Your task to perform on an android device: refresh tabs in the chrome app Image 0: 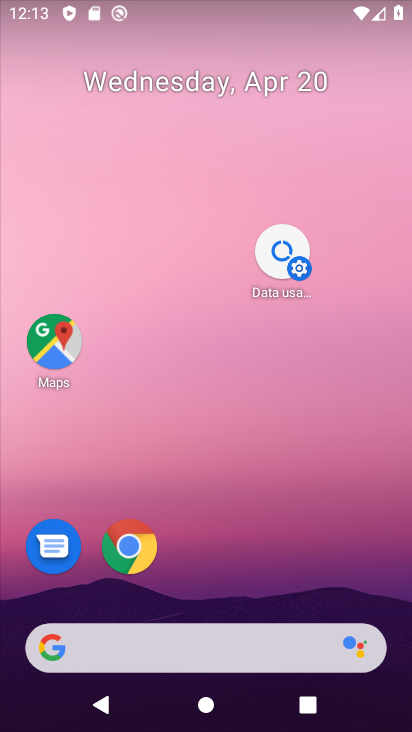
Step 0: click (133, 546)
Your task to perform on an android device: refresh tabs in the chrome app Image 1: 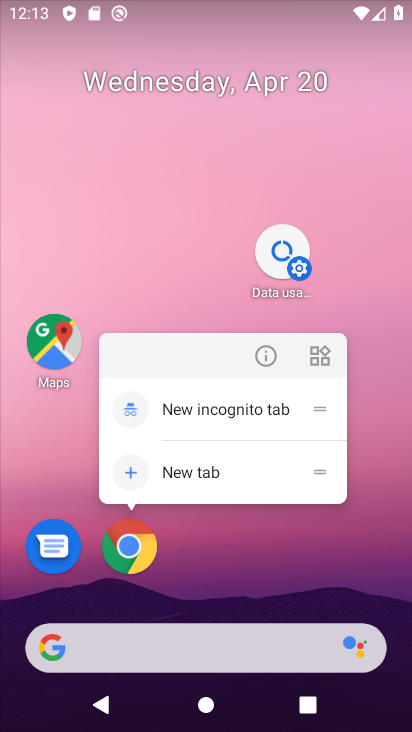
Step 1: click (133, 546)
Your task to perform on an android device: refresh tabs in the chrome app Image 2: 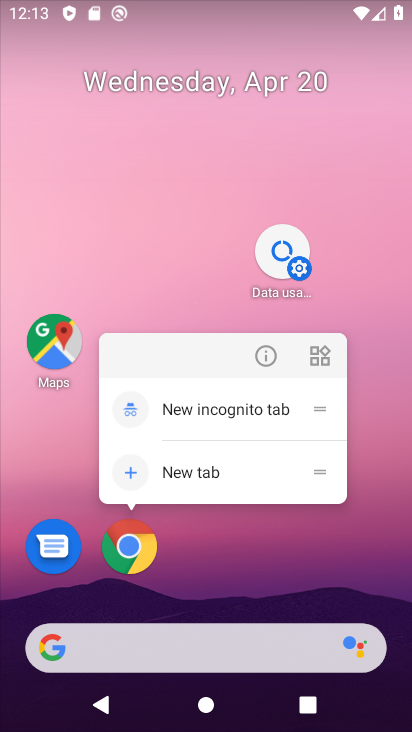
Step 2: click (119, 549)
Your task to perform on an android device: refresh tabs in the chrome app Image 3: 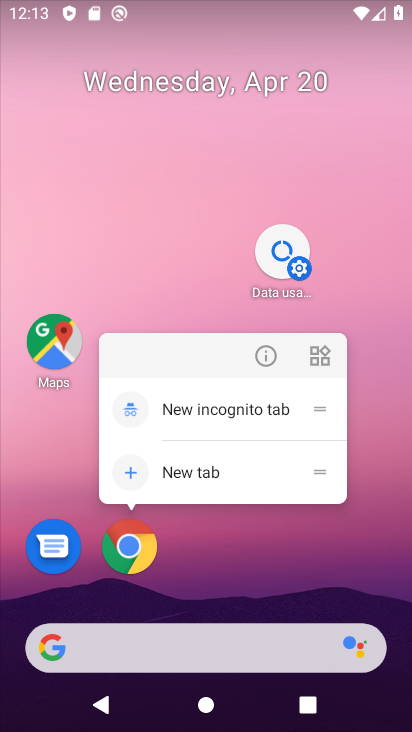
Step 3: click (112, 546)
Your task to perform on an android device: refresh tabs in the chrome app Image 4: 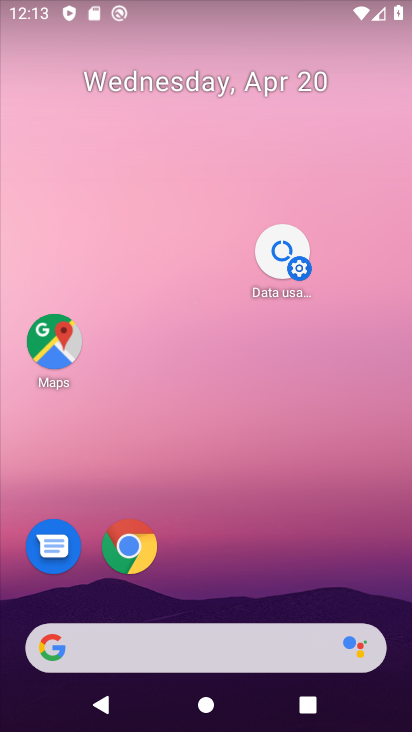
Step 4: click (123, 540)
Your task to perform on an android device: refresh tabs in the chrome app Image 5: 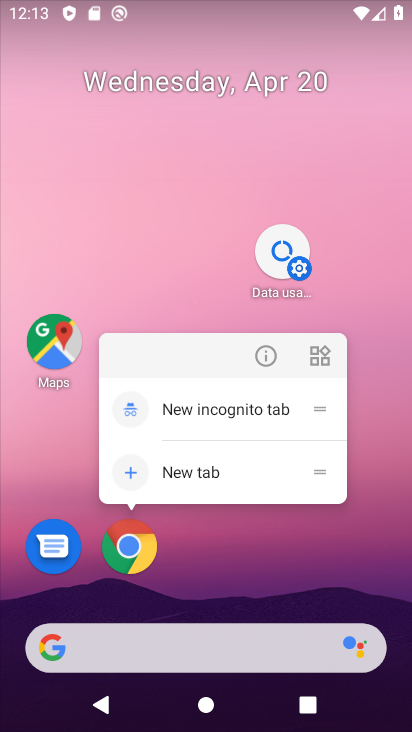
Step 5: click (123, 540)
Your task to perform on an android device: refresh tabs in the chrome app Image 6: 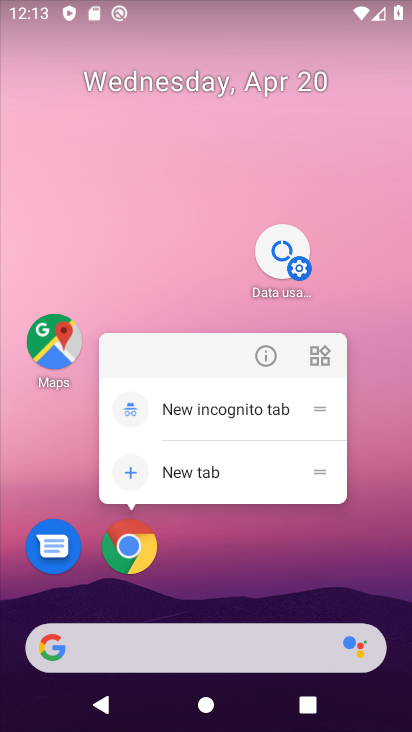
Step 6: click (127, 547)
Your task to perform on an android device: refresh tabs in the chrome app Image 7: 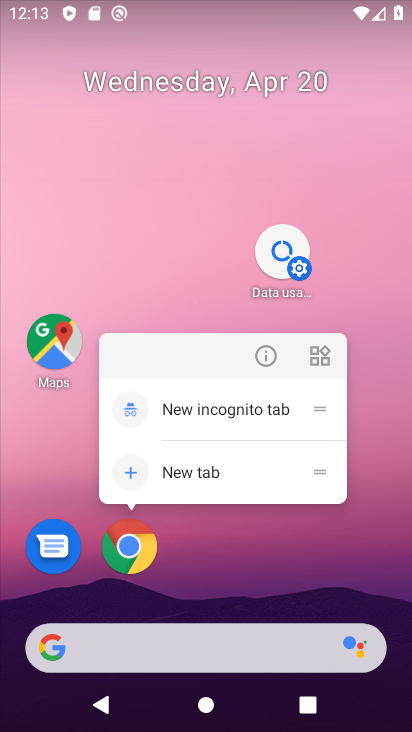
Step 7: click (111, 547)
Your task to perform on an android device: refresh tabs in the chrome app Image 8: 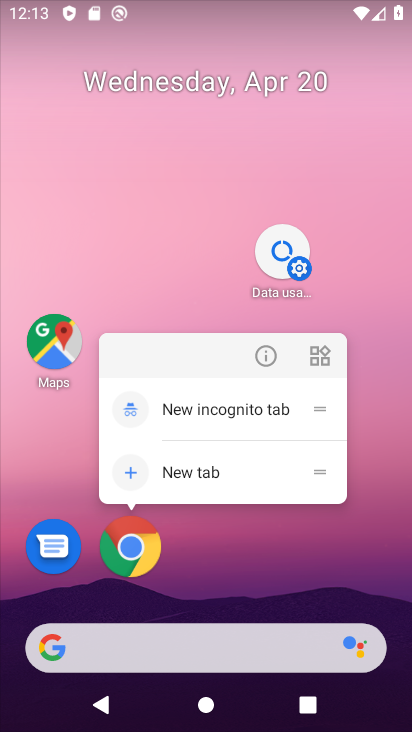
Step 8: click (111, 547)
Your task to perform on an android device: refresh tabs in the chrome app Image 9: 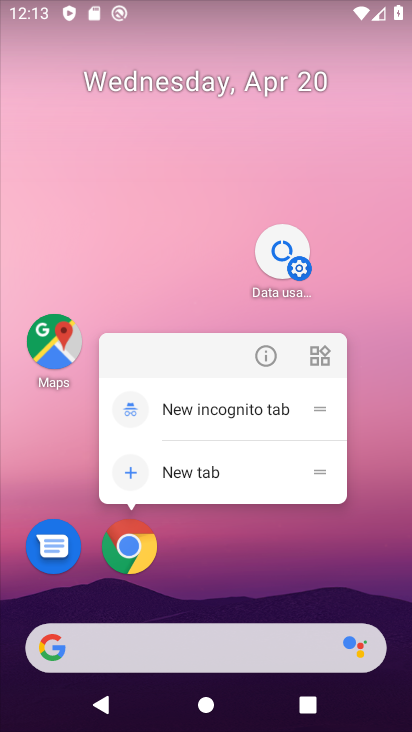
Step 9: click (129, 562)
Your task to perform on an android device: refresh tabs in the chrome app Image 10: 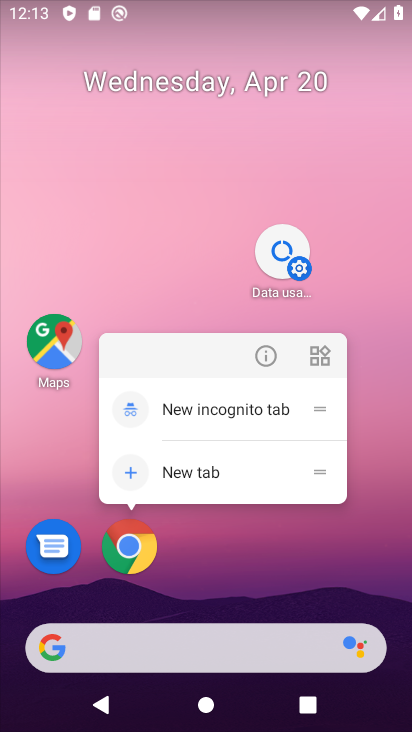
Step 10: click (129, 562)
Your task to perform on an android device: refresh tabs in the chrome app Image 11: 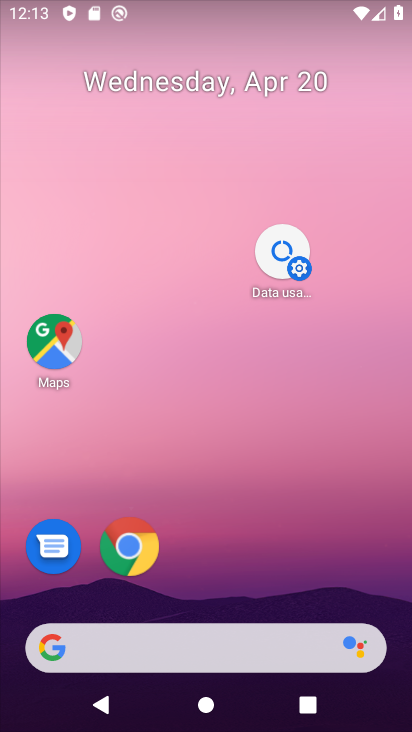
Step 11: click (129, 562)
Your task to perform on an android device: refresh tabs in the chrome app Image 12: 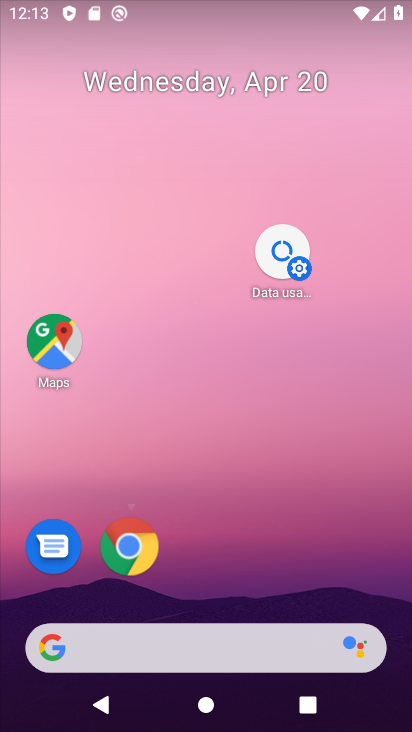
Step 12: click (129, 562)
Your task to perform on an android device: refresh tabs in the chrome app Image 13: 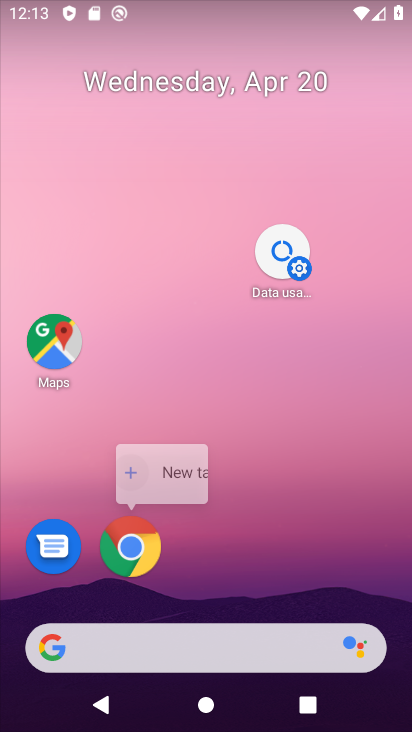
Step 13: click (129, 562)
Your task to perform on an android device: refresh tabs in the chrome app Image 14: 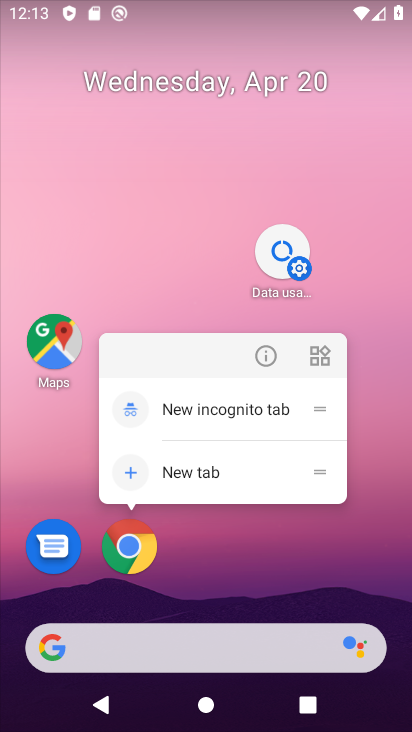
Step 14: click (129, 562)
Your task to perform on an android device: refresh tabs in the chrome app Image 15: 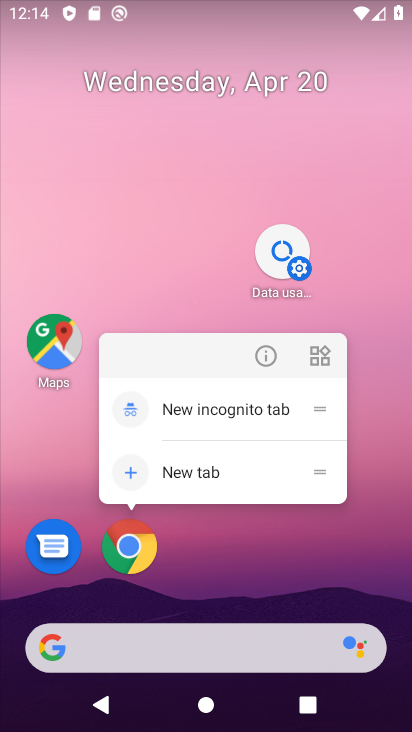
Step 15: click (129, 562)
Your task to perform on an android device: refresh tabs in the chrome app Image 16: 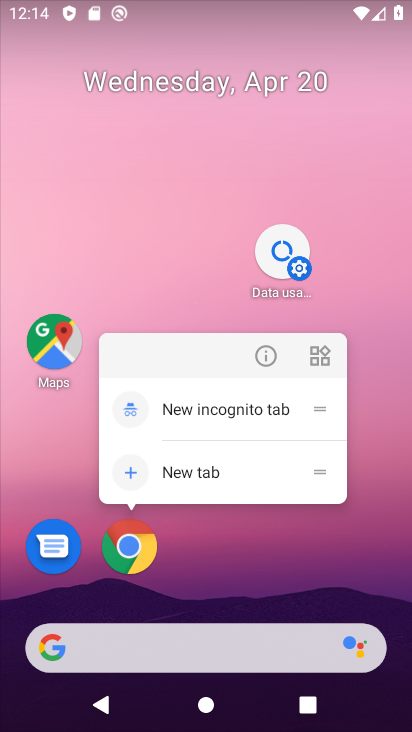
Step 16: click (129, 562)
Your task to perform on an android device: refresh tabs in the chrome app Image 17: 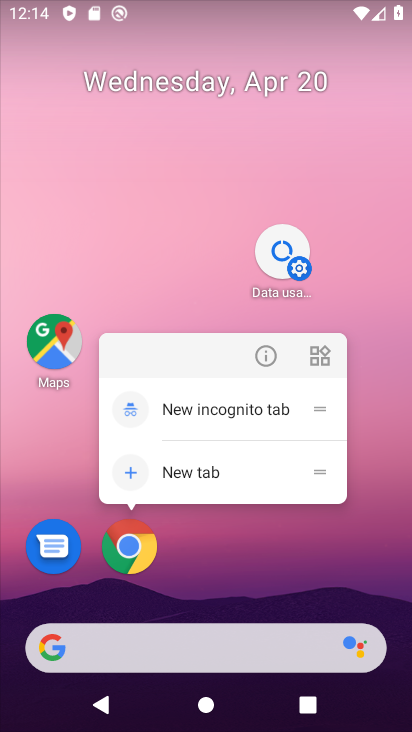
Step 17: click (129, 562)
Your task to perform on an android device: refresh tabs in the chrome app Image 18: 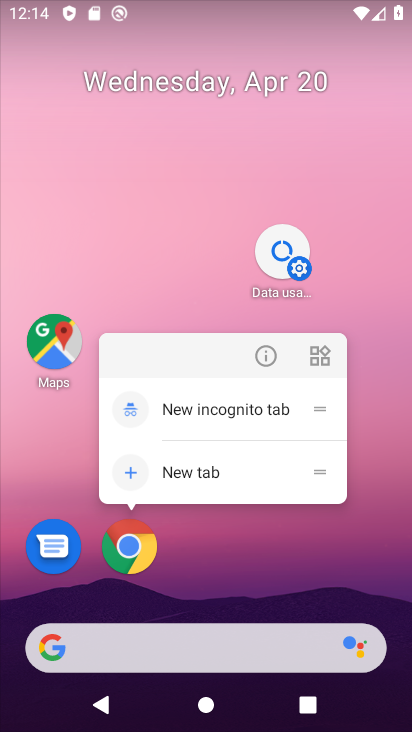
Step 18: click (138, 543)
Your task to perform on an android device: refresh tabs in the chrome app Image 19: 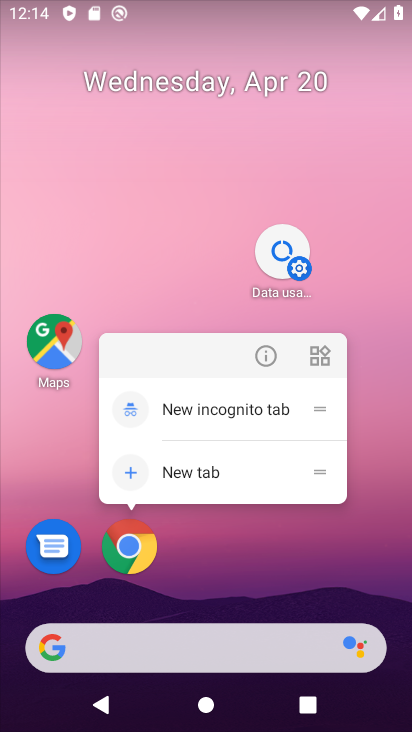
Step 19: click (145, 538)
Your task to perform on an android device: refresh tabs in the chrome app Image 20: 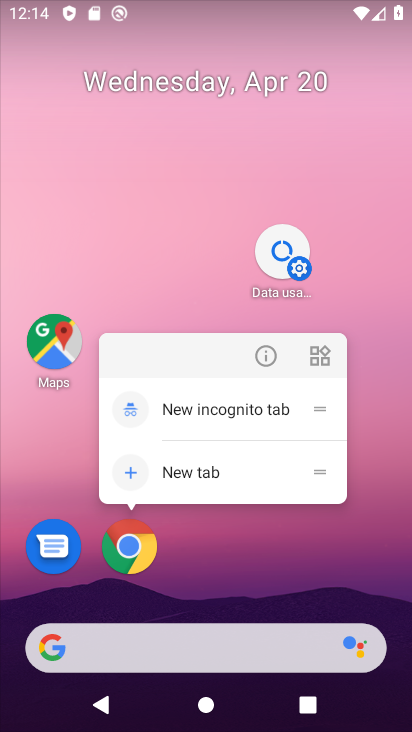
Step 20: click (145, 538)
Your task to perform on an android device: refresh tabs in the chrome app Image 21: 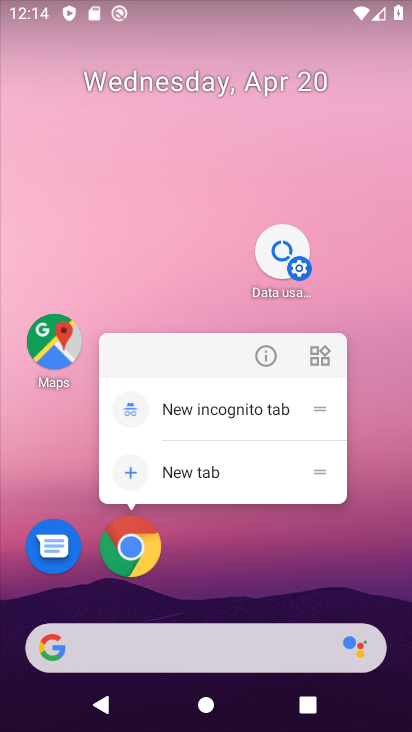
Step 21: click (145, 538)
Your task to perform on an android device: refresh tabs in the chrome app Image 22: 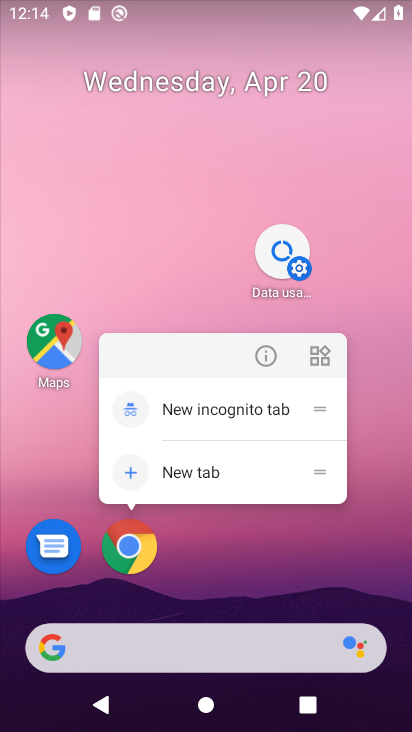
Step 22: click (145, 538)
Your task to perform on an android device: refresh tabs in the chrome app Image 23: 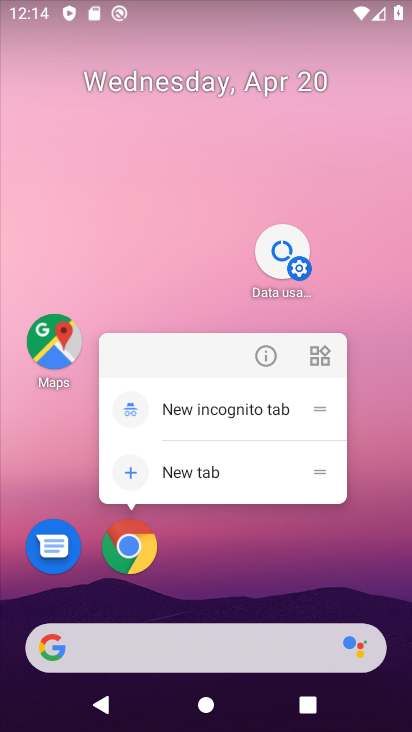
Step 23: click (123, 578)
Your task to perform on an android device: refresh tabs in the chrome app Image 24: 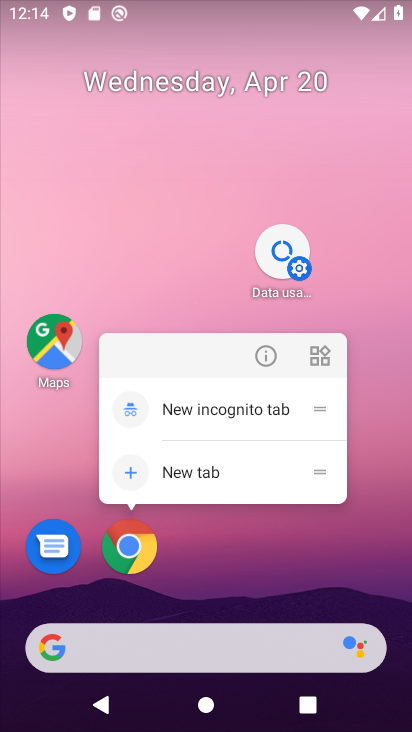
Step 24: click (132, 540)
Your task to perform on an android device: refresh tabs in the chrome app Image 25: 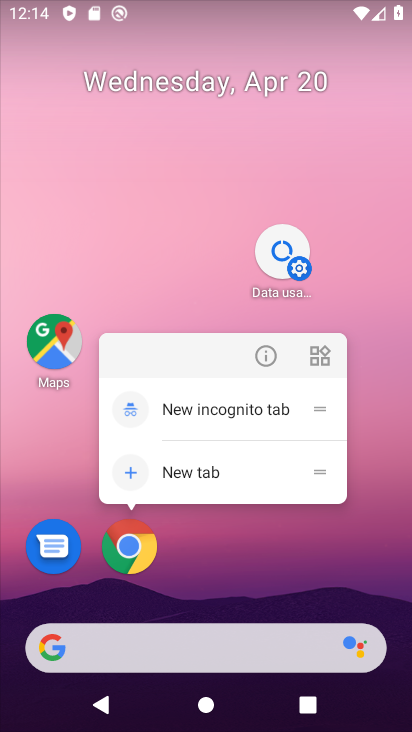
Step 25: click (109, 533)
Your task to perform on an android device: refresh tabs in the chrome app Image 26: 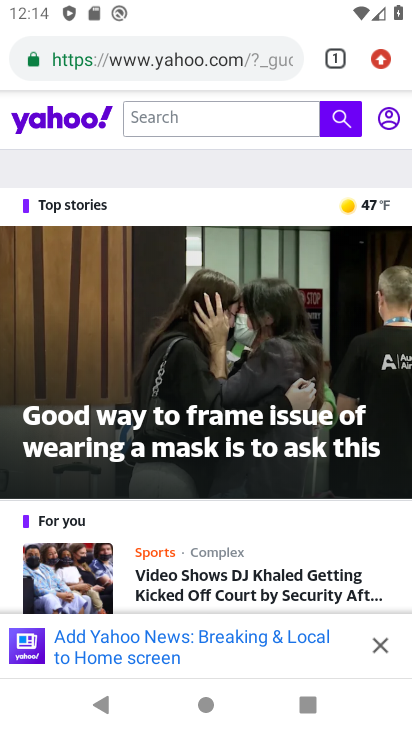
Step 26: click (381, 58)
Your task to perform on an android device: refresh tabs in the chrome app Image 27: 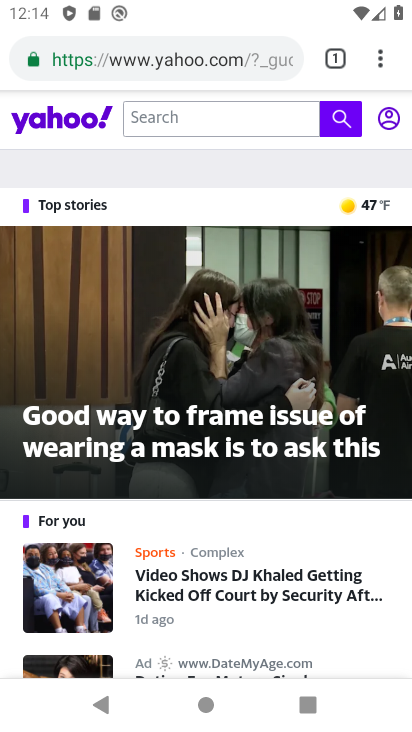
Step 27: click (376, 59)
Your task to perform on an android device: refresh tabs in the chrome app Image 28: 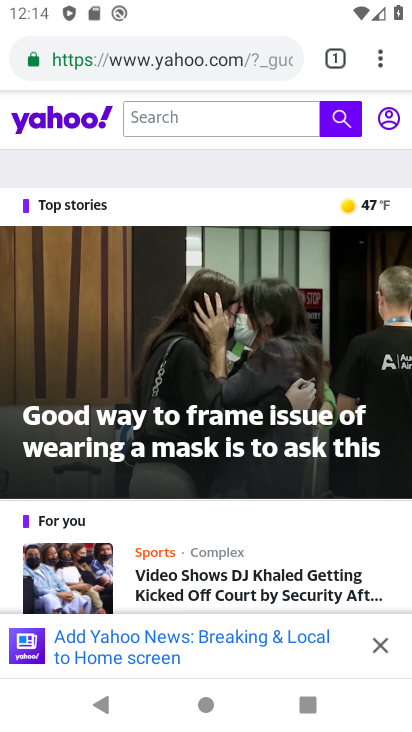
Step 28: task complete